Your task to perform on an android device: open app "Life360: Find Family & Friends" (install if not already installed) and go to login screen Image 0: 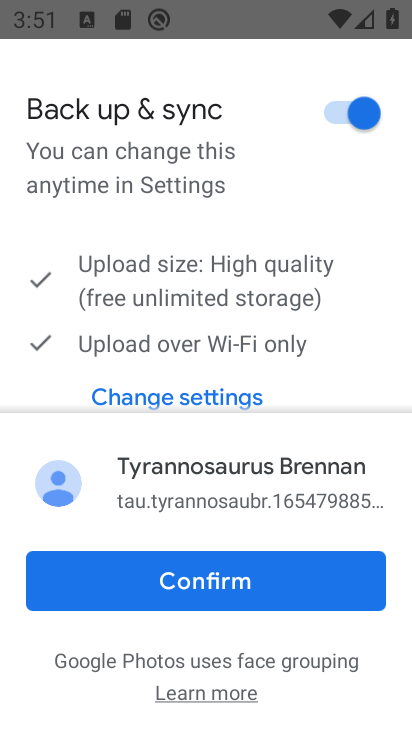
Step 0: press home button
Your task to perform on an android device: open app "Life360: Find Family & Friends" (install if not already installed) and go to login screen Image 1: 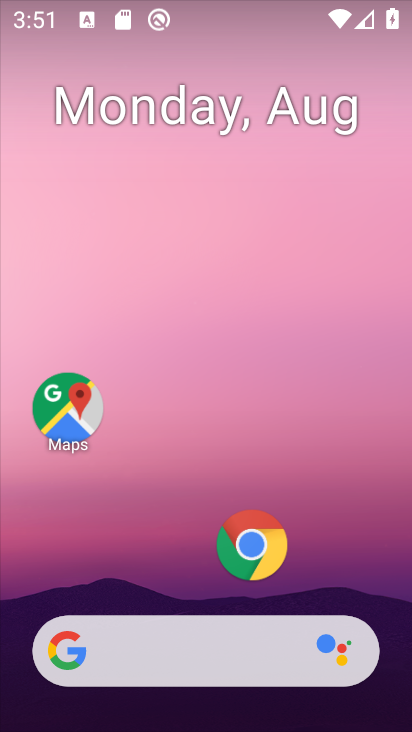
Step 1: drag from (153, 581) to (234, 20)
Your task to perform on an android device: open app "Life360: Find Family & Friends" (install if not already installed) and go to login screen Image 2: 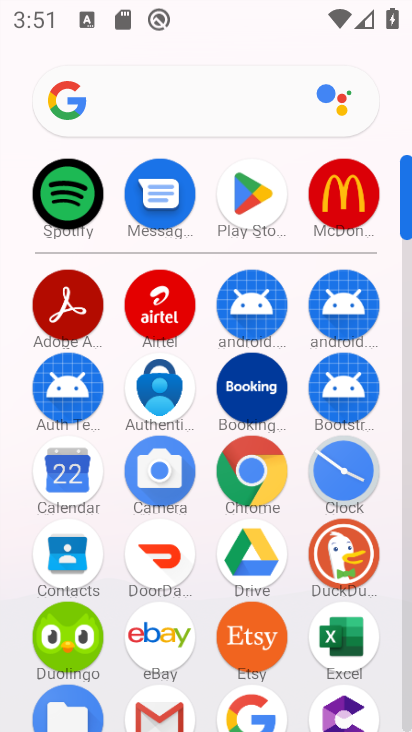
Step 2: click (253, 191)
Your task to perform on an android device: open app "Life360: Find Family & Friends" (install if not already installed) and go to login screen Image 3: 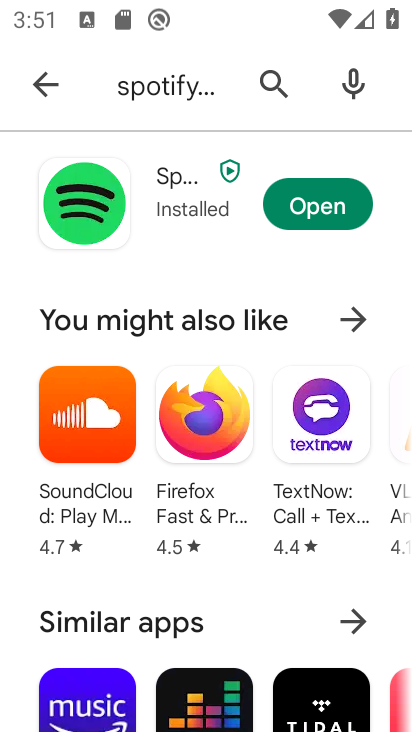
Step 3: click (278, 86)
Your task to perform on an android device: open app "Life360: Find Family & Friends" (install if not already installed) and go to login screen Image 4: 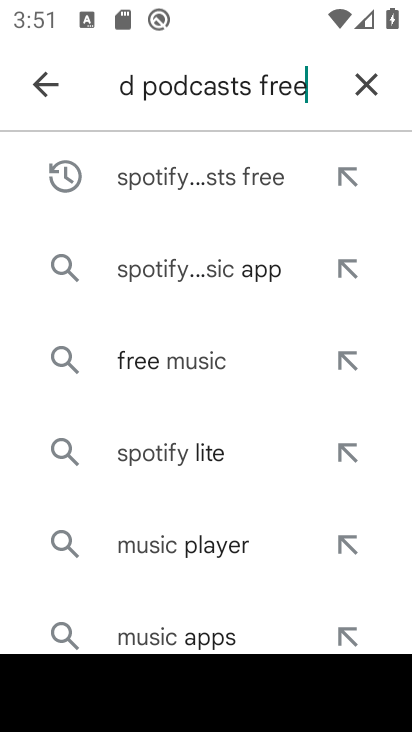
Step 4: click (363, 80)
Your task to perform on an android device: open app "Life360: Find Family & Friends" (install if not already installed) and go to login screen Image 5: 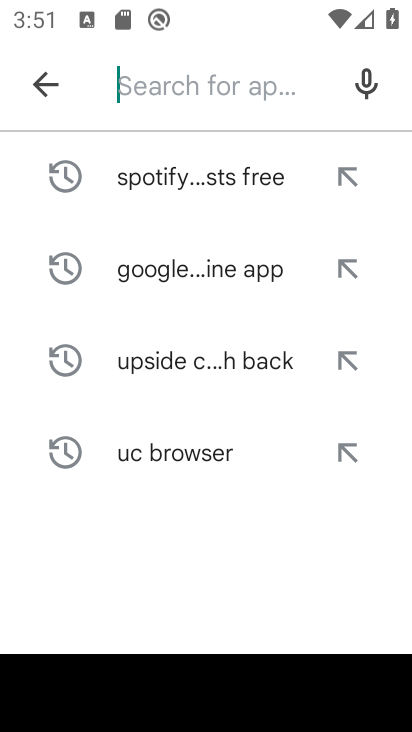
Step 5: click (196, 91)
Your task to perform on an android device: open app "Life360: Find Family & Friends" (install if not already installed) and go to login screen Image 6: 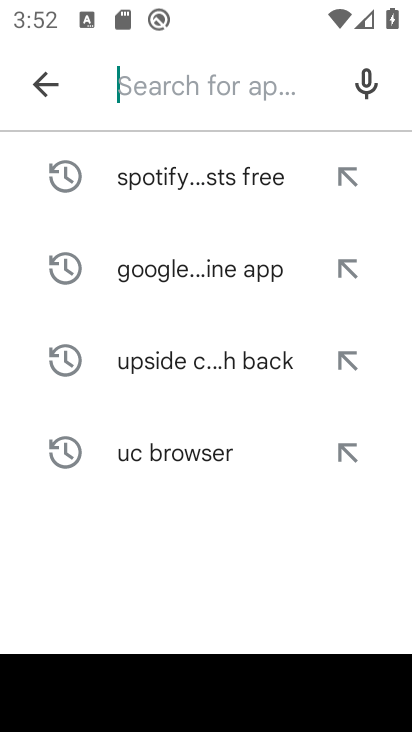
Step 6: type "life360"
Your task to perform on an android device: open app "Life360: Find Family & Friends" (install if not already installed) and go to login screen Image 7: 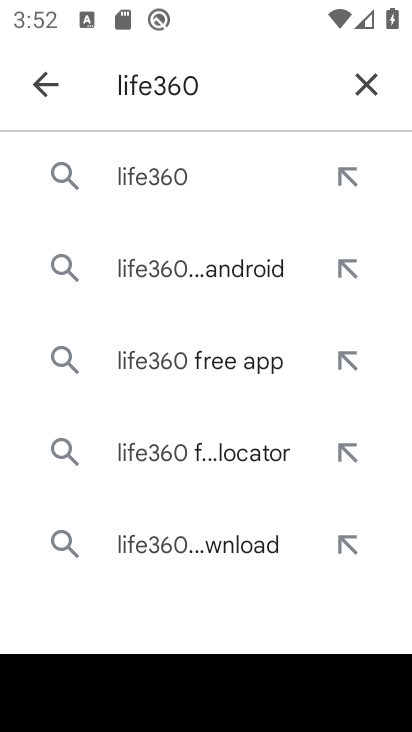
Step 7: click (129, 176)
Your task to perform on an android device: open app "Life360: Find Family & Friends" (install if not already installed) and go to login screen Image 8: 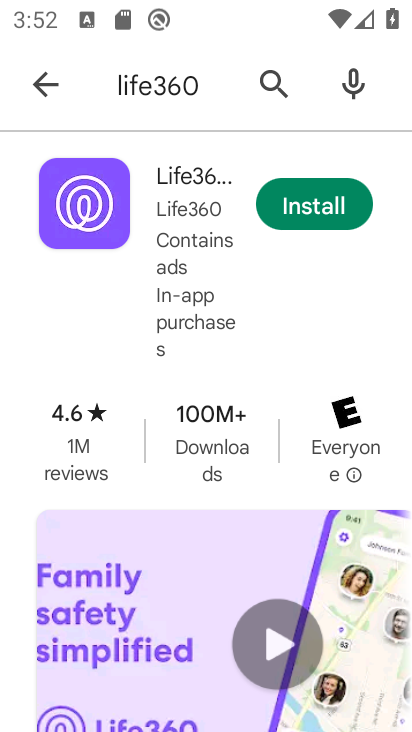
Step 8: click (299, 206)
Your task to perform on an android device: open app "Life360: Find Family & Friends" (install if not already installed) and go to login screen Image 9: 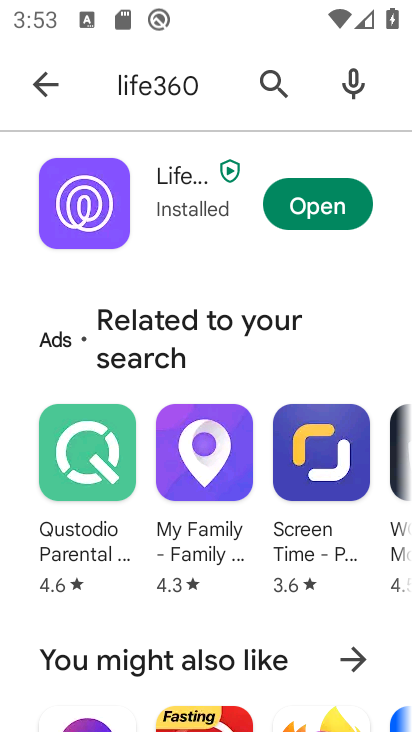
Step 9: click (322, 215)
Your task to perform on an android device: open app "Life360: Find Family & Friends" (install if not already installed) and go to login screen Image 10: 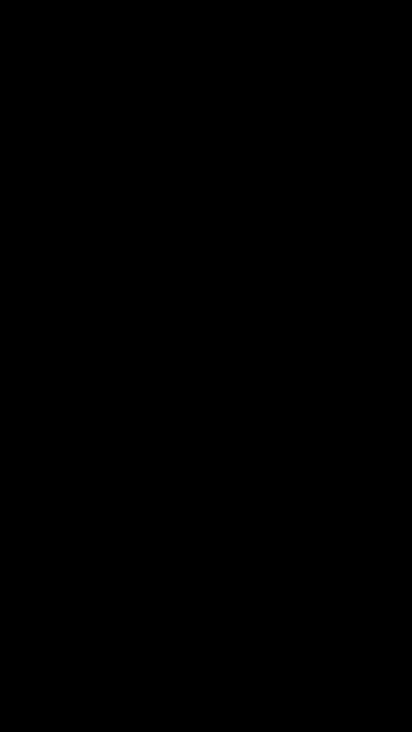
Step 10: task complete